Your task to perform on an android device: Open CNN.com Image 0: 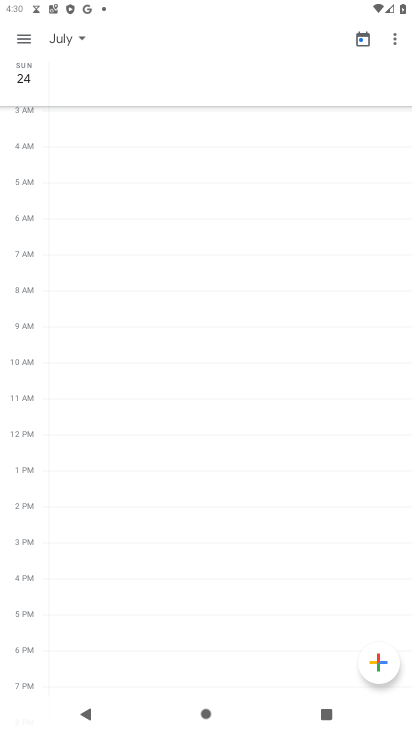
Step 0: press home button
Your task to perform on an android device: Open CNN.com Image 1: 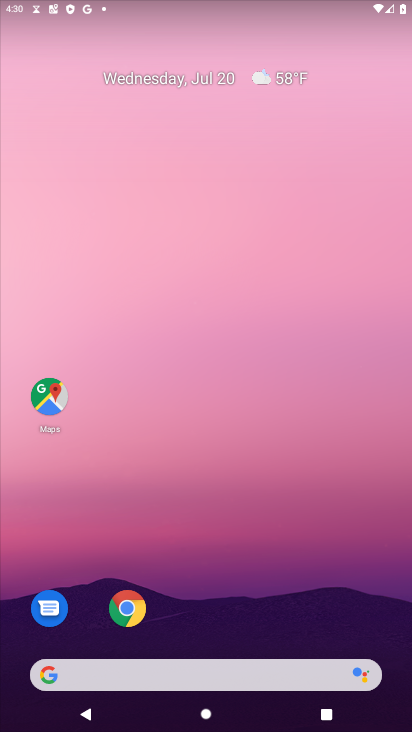
Step 1: click (133, 606)
Your task to perform on an android device: Open CNN.com Image 2: 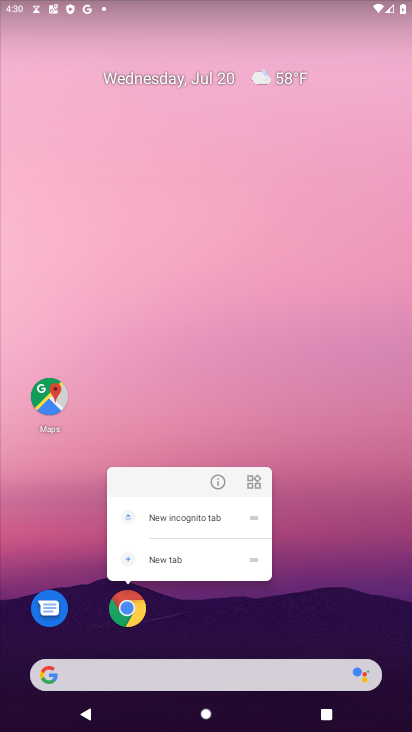
Step 2: click (133, 606)
Your task to perform on an android device: Open CNN.com Image 3: 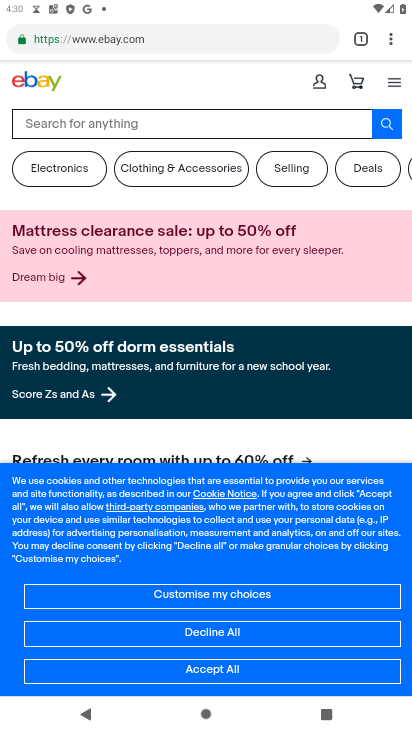
Step 3: click (167, 41)
Your task to perform on an android device: Open CNN.com Image 4: 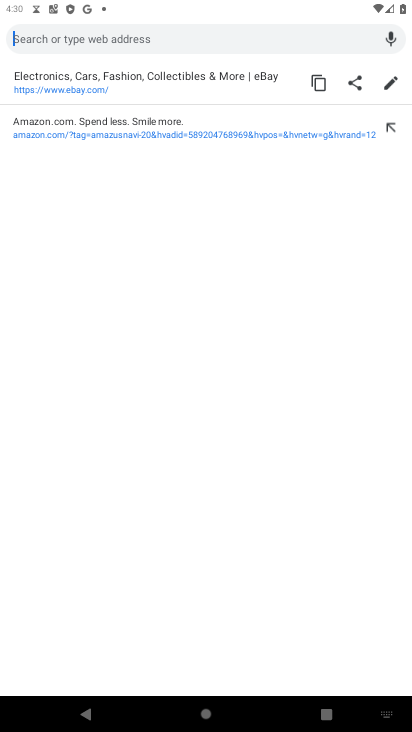
Step 4: type "CNN.com"
Your task to perform on an android device: Open CNN.com Image 5: 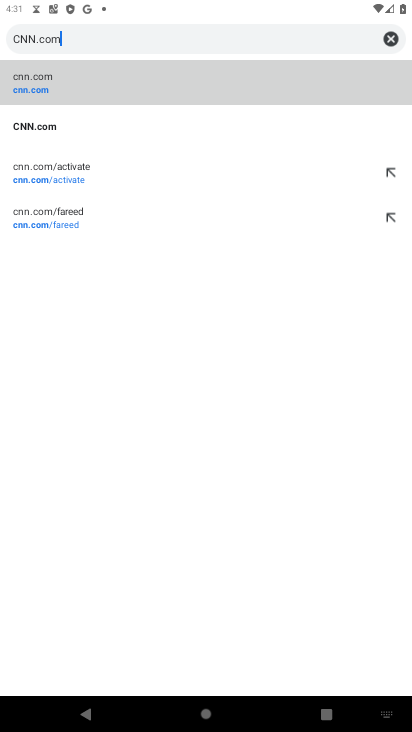
Step 5: click (115, 87)
Your task to perform on an android device: Open CNN.com Image 6: 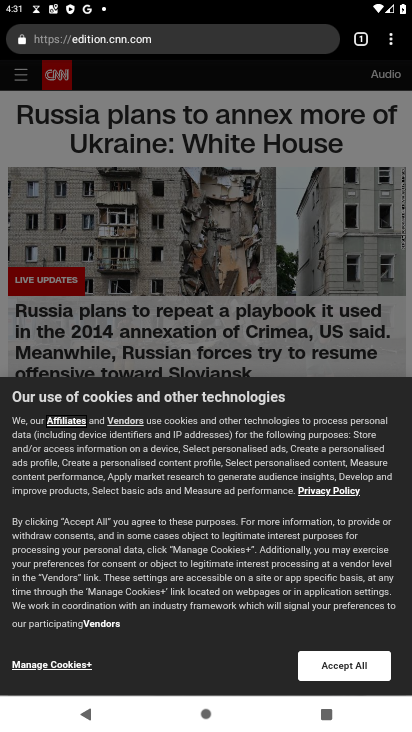
Step 6: task complete